Your task to perform on an android device: turn on notifications settings in the gmail app Image 0: 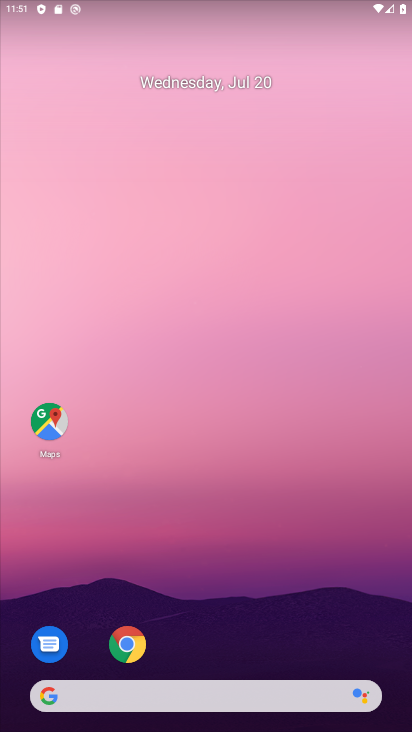
Step 0: drag from (232, 540) to (244, 276)
Your task to perform on an android device: turn on notifications settings in the gmail app Image 1: 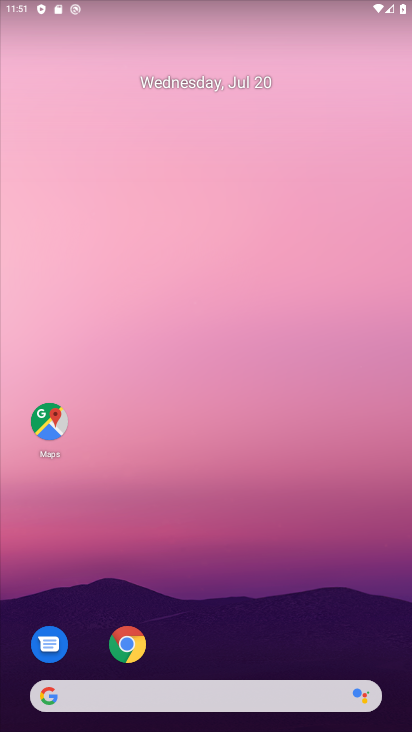
Step 1: drag from (291, 567) to (239, 226)
Your task to perform on an android device: turn on notifications settings in the gmail app Image 2: 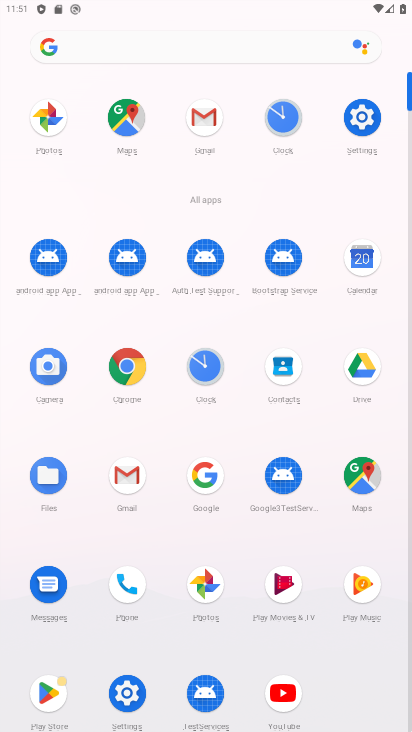
Step 2: click (119, 478)
Your task to perform on an android device: turn on notifications settings in the gmail app Image 3: 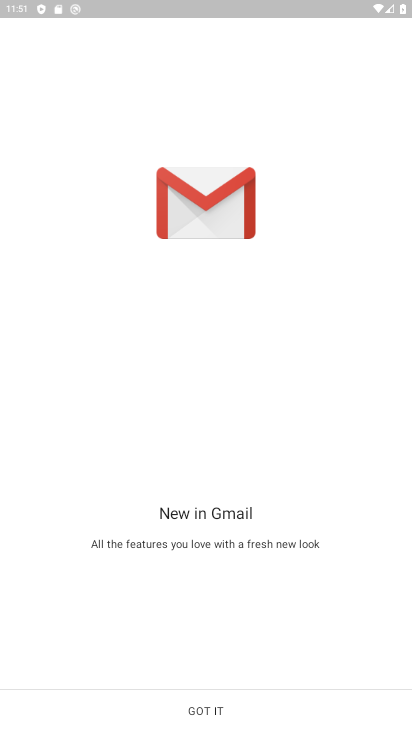
Step 3: click (204, 722)
Your task to perform on an android device: turn on notifications settings in the gmail app Image 4: 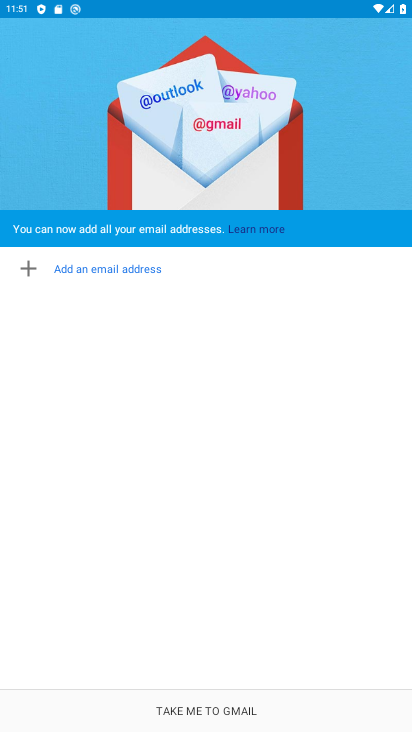
Step 4: click (205, 705)
Your task to perform on an android device: turn on notifications settings in the gmail app Image 5: 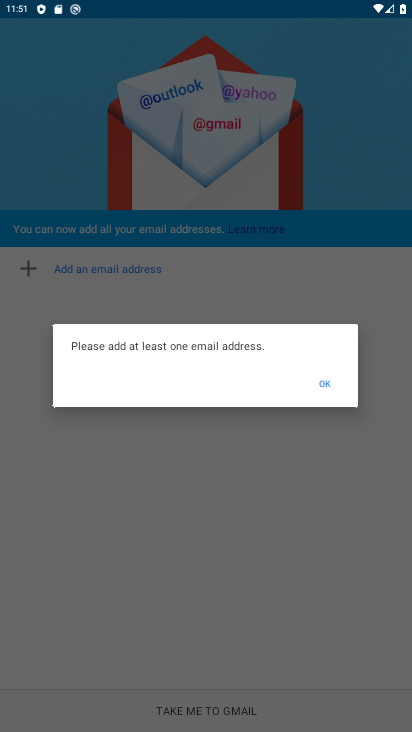
Step 5: click (325, 375)
Your task to perform on an android device: turn on notifications settings in the gmail app Image 6: 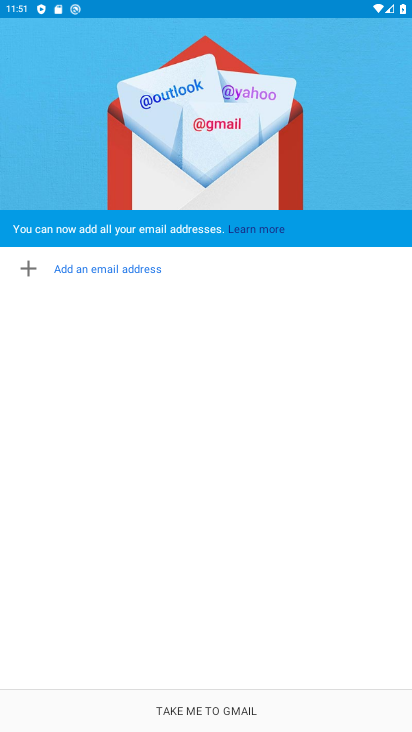
Step 6: task complete